Your task to perform on an android device: Go to privacy settings Image 0: 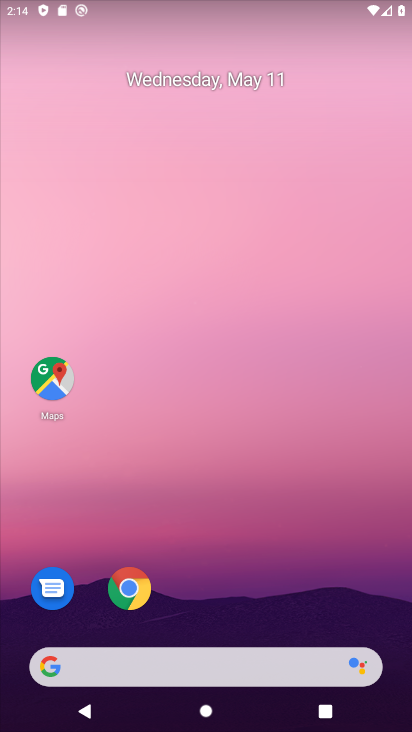
Step 0: drag from (246, 483) to (214, 87)
Your task to perform on an android device: Go to privacy settings Image 1: 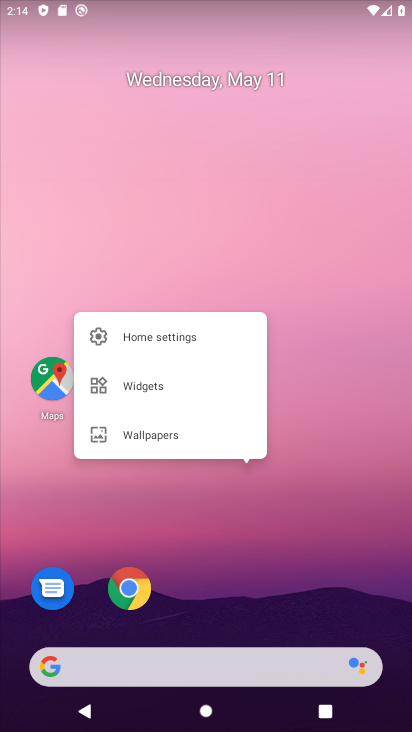
Step 1: drag from (281, 599) to (315, 377)
Your task to perform on an android device: Go to privacy settings Image 2: 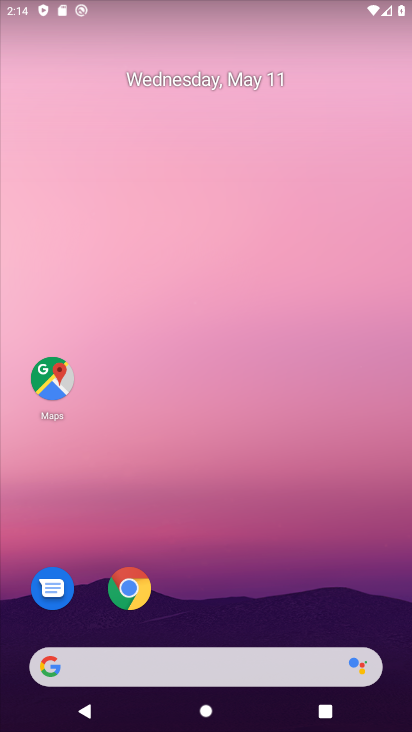
Step 2: drag from (262, 604) to (205, 145)
Your task to perform on an android device: Go to privacy settings Image 3: 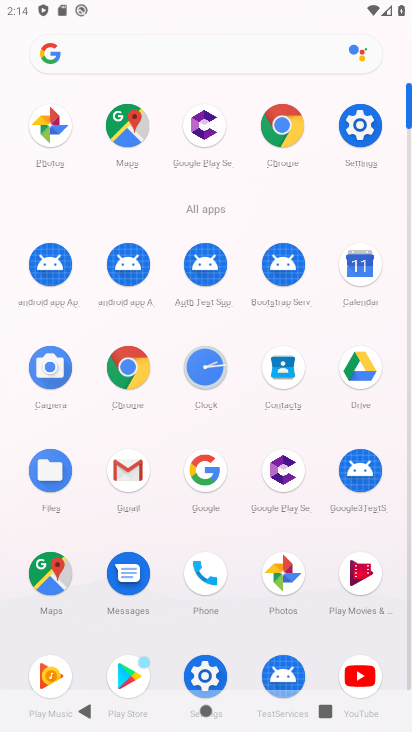
Step 3: click (362, 131)
Your task to perform on an android device: Go to privacy settings Image 4: 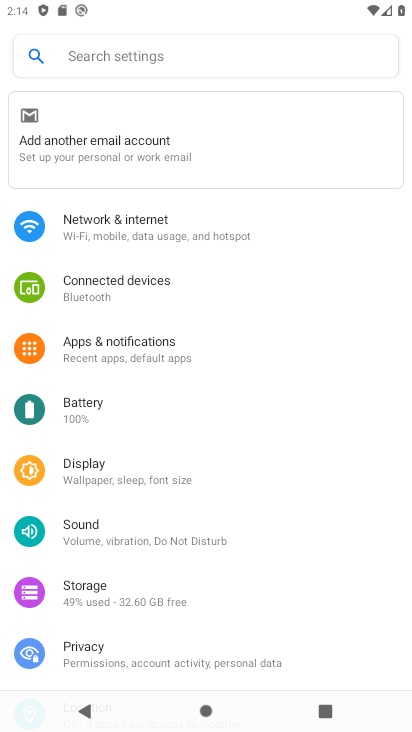
Step 4: click (84, 646)
Your task to perform on an android device: Go to privacy settings Image 5: 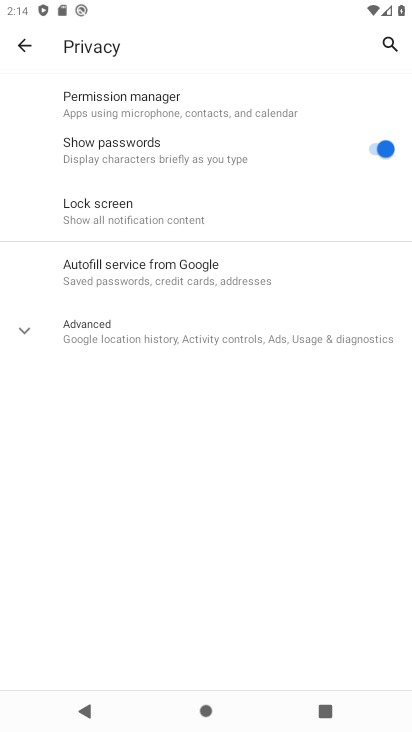
Step 5: click (69, 648)
Your task to perform on an android device: Go to privacy settings Image 6: 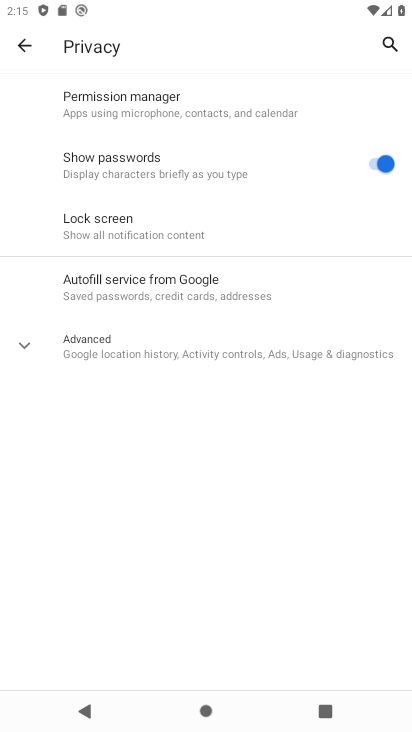
Step 6: task complete